Your task to perform on an android device: Add dell alienware to the cart on target.com Image 0: 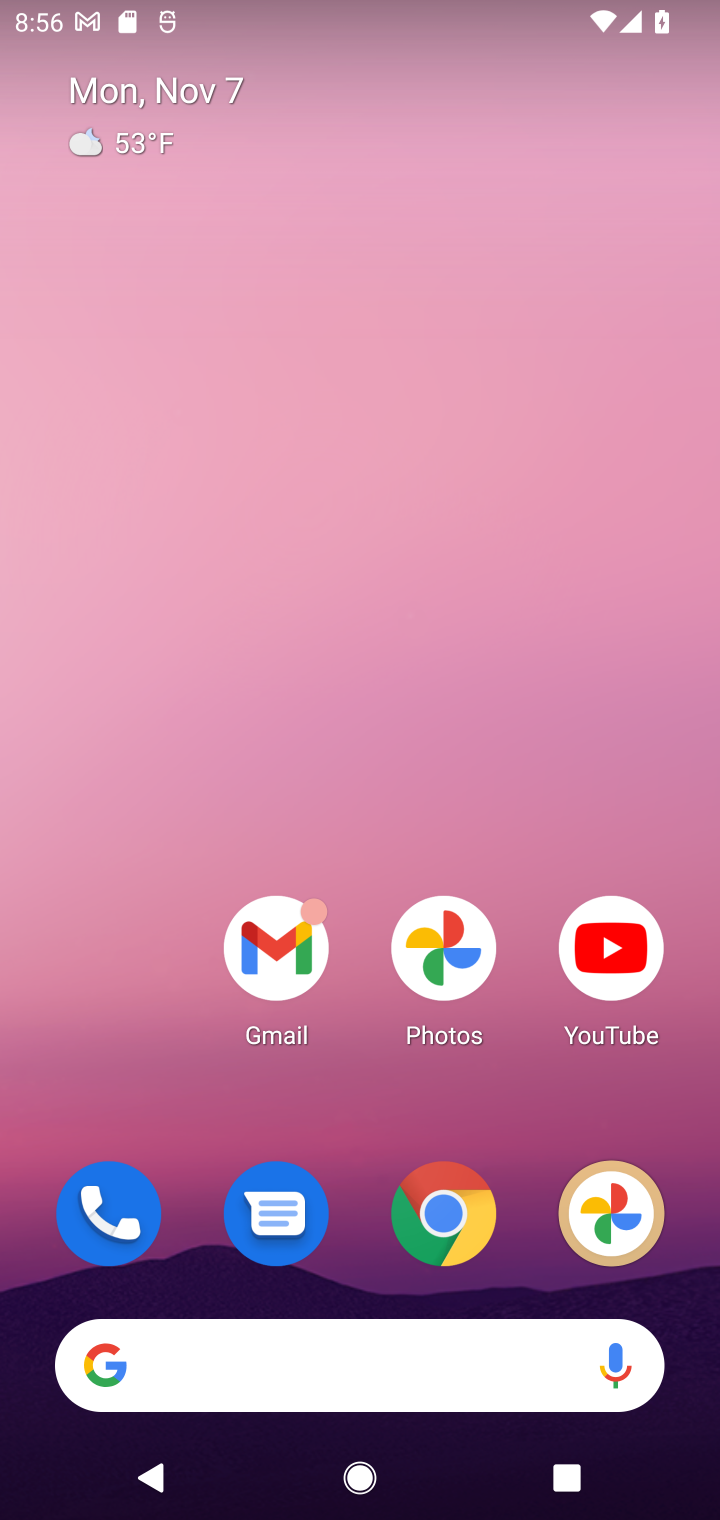
Step 0: click (448, 1204)
Your task to perform on an android device: Add dell alienware to the cart on target.com Image 1: 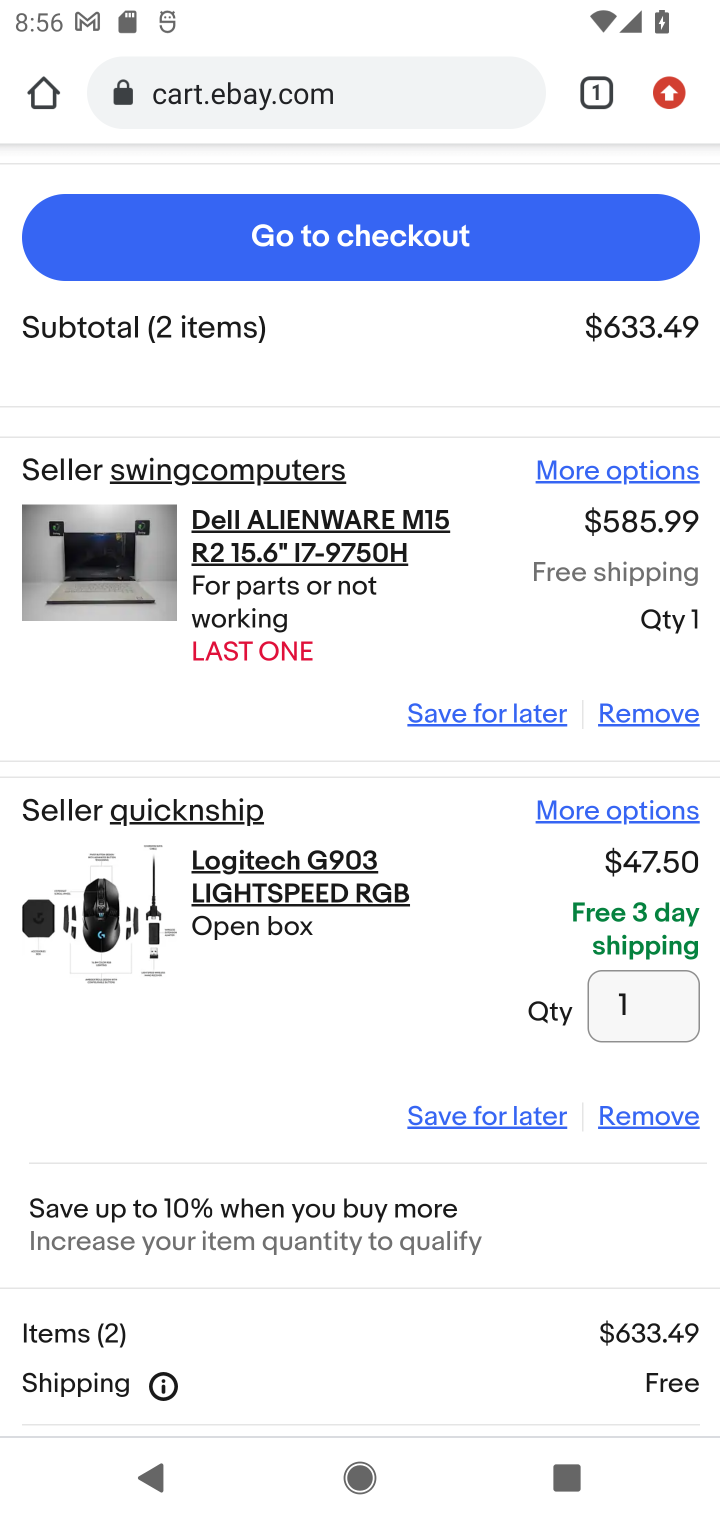
Step 1: click (275, 94)
Your task to perform on an android device: Add dell alienware to the cart on target.com Image 2: 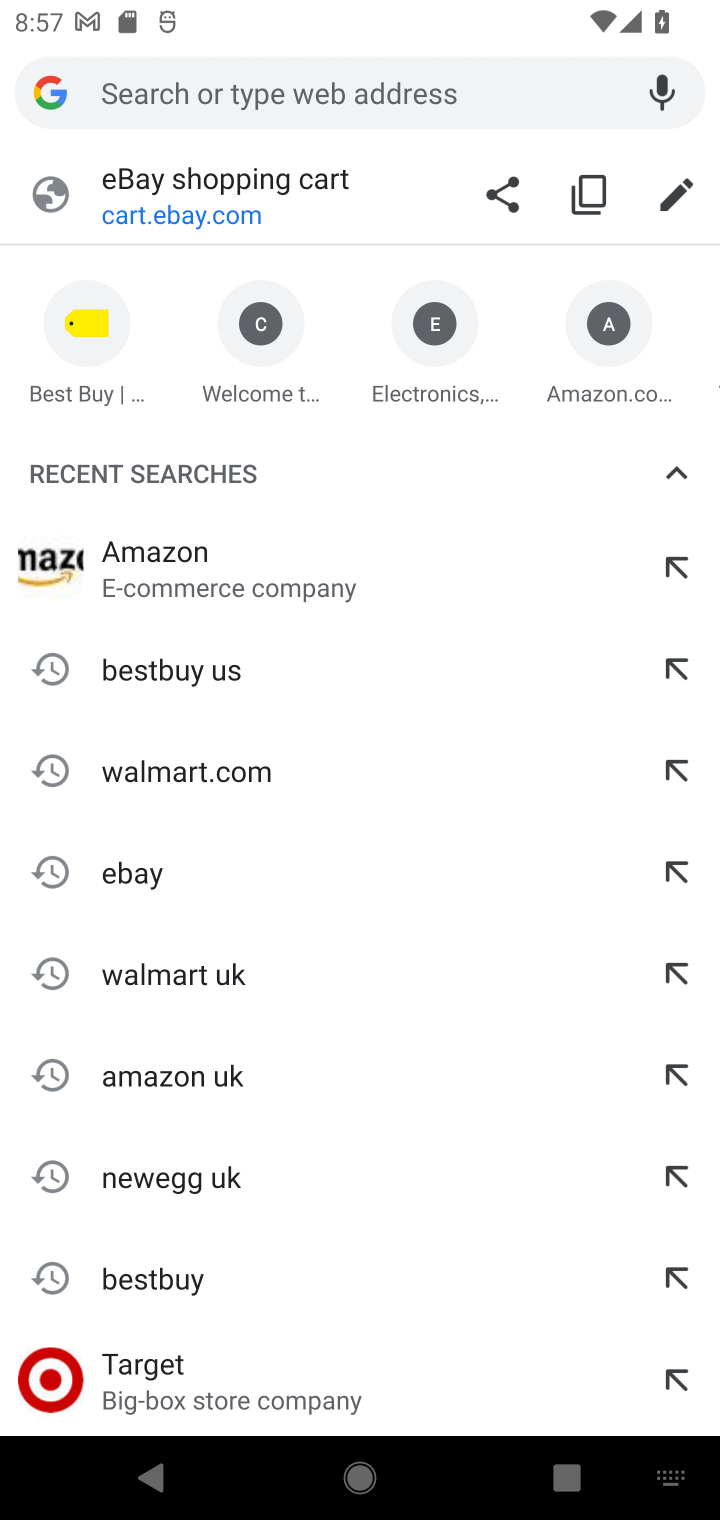
Step 2: type "target.com"
Your task to perform on an android device: Add dell alienware to the cart on target.com Image 3: 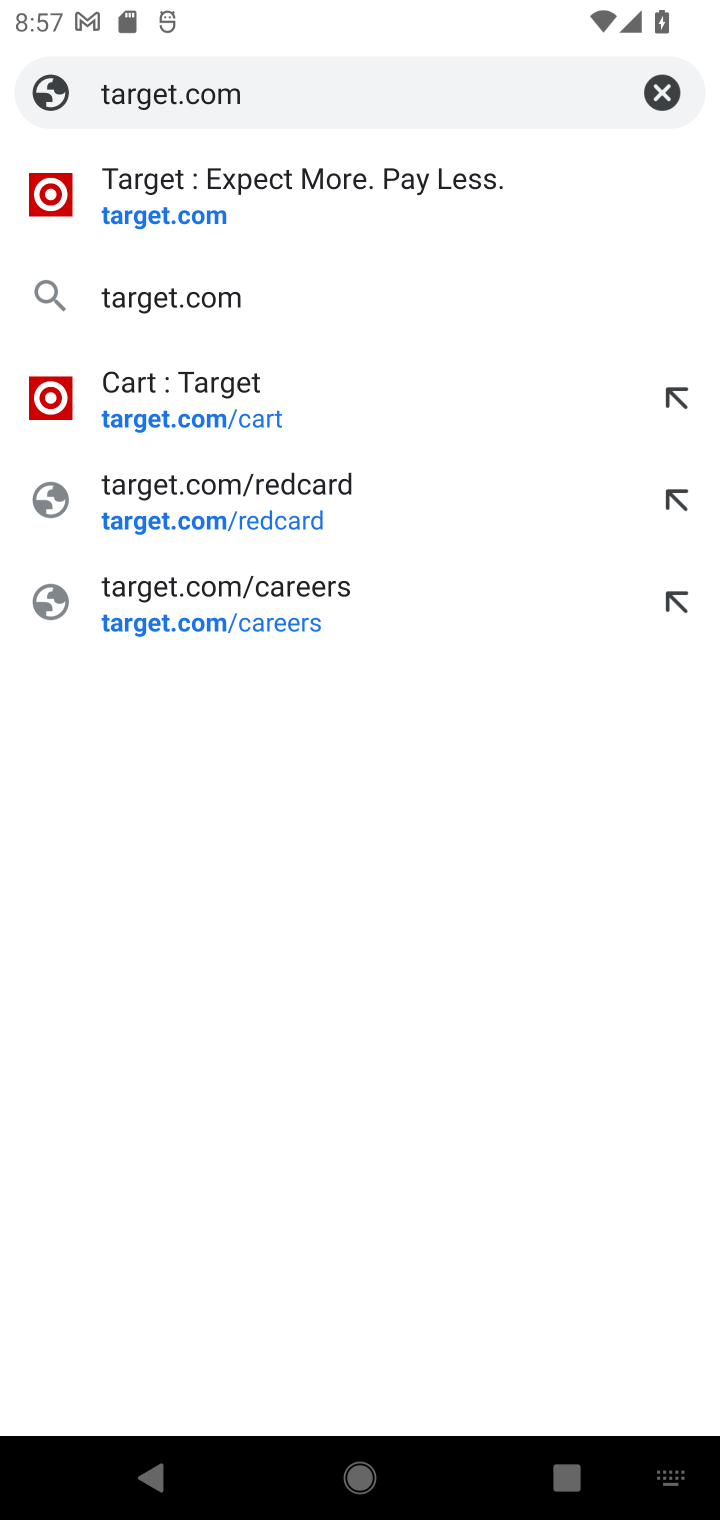
Step 3: click (150, 225)
Your task to perform on an android device: Add dell alienware to the cart on target.com Image 4: 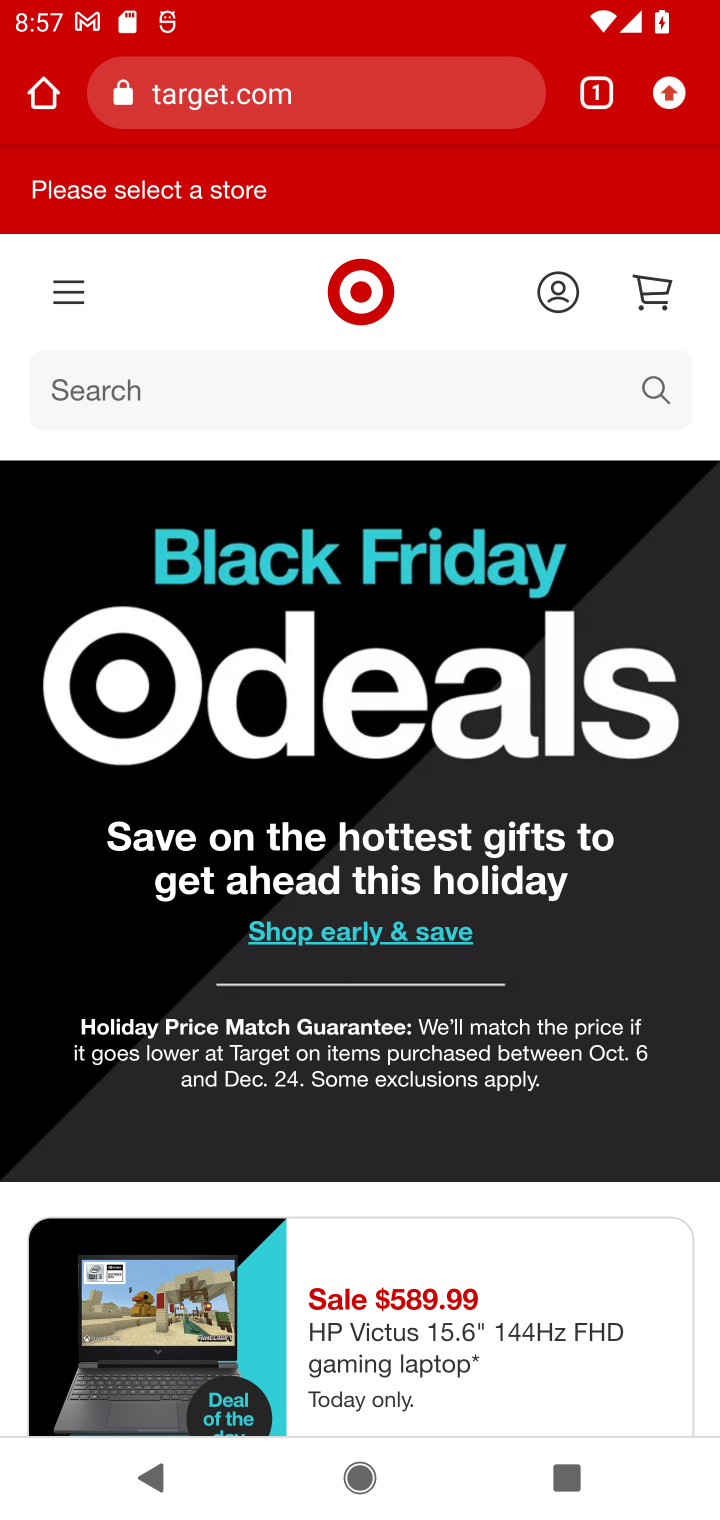
Step 4: click (659, 389)
Your task to perform on an android device: Add dell alienware to the cart on target.com Image 5: 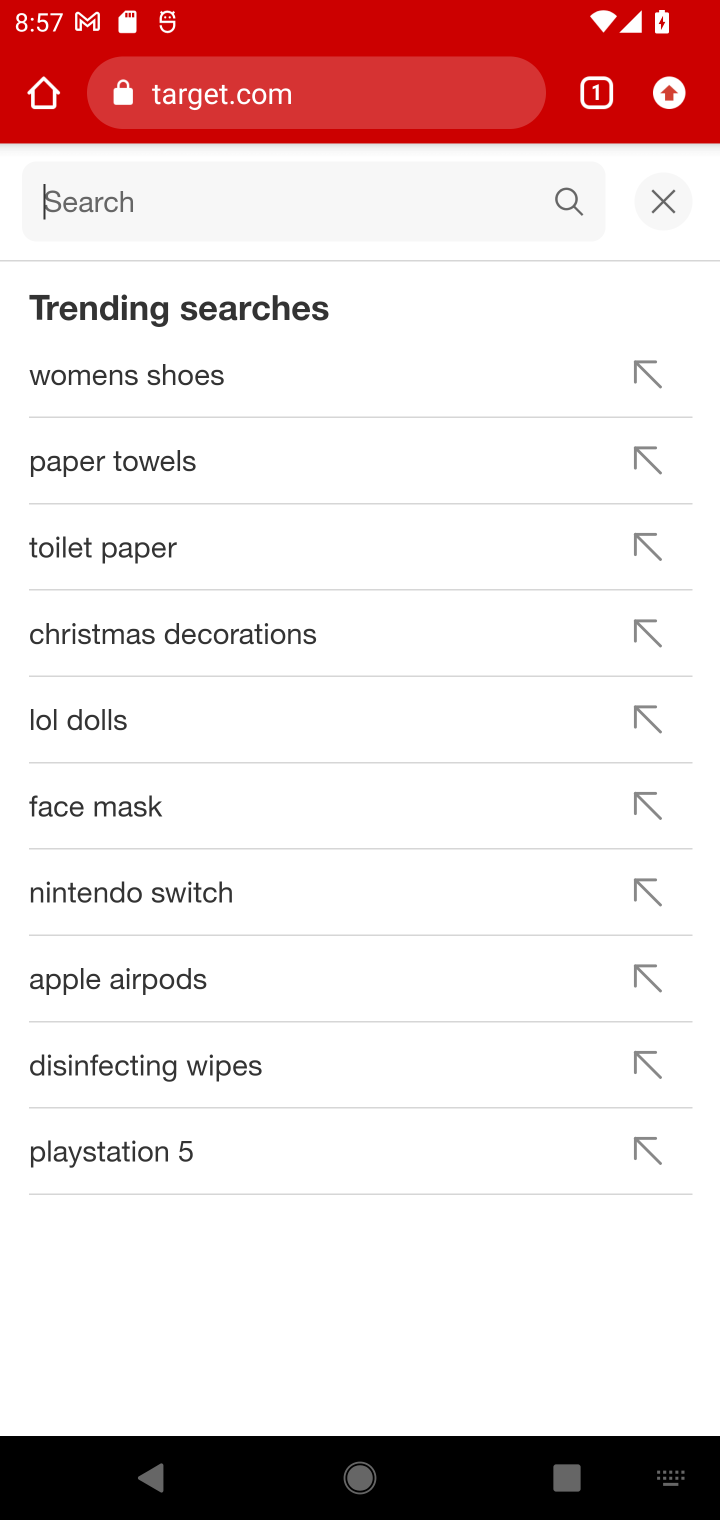
Step 5: type "dell alienware"
Your task to perform on an android device: Add dell alienware to the cart on target.com Image 6: 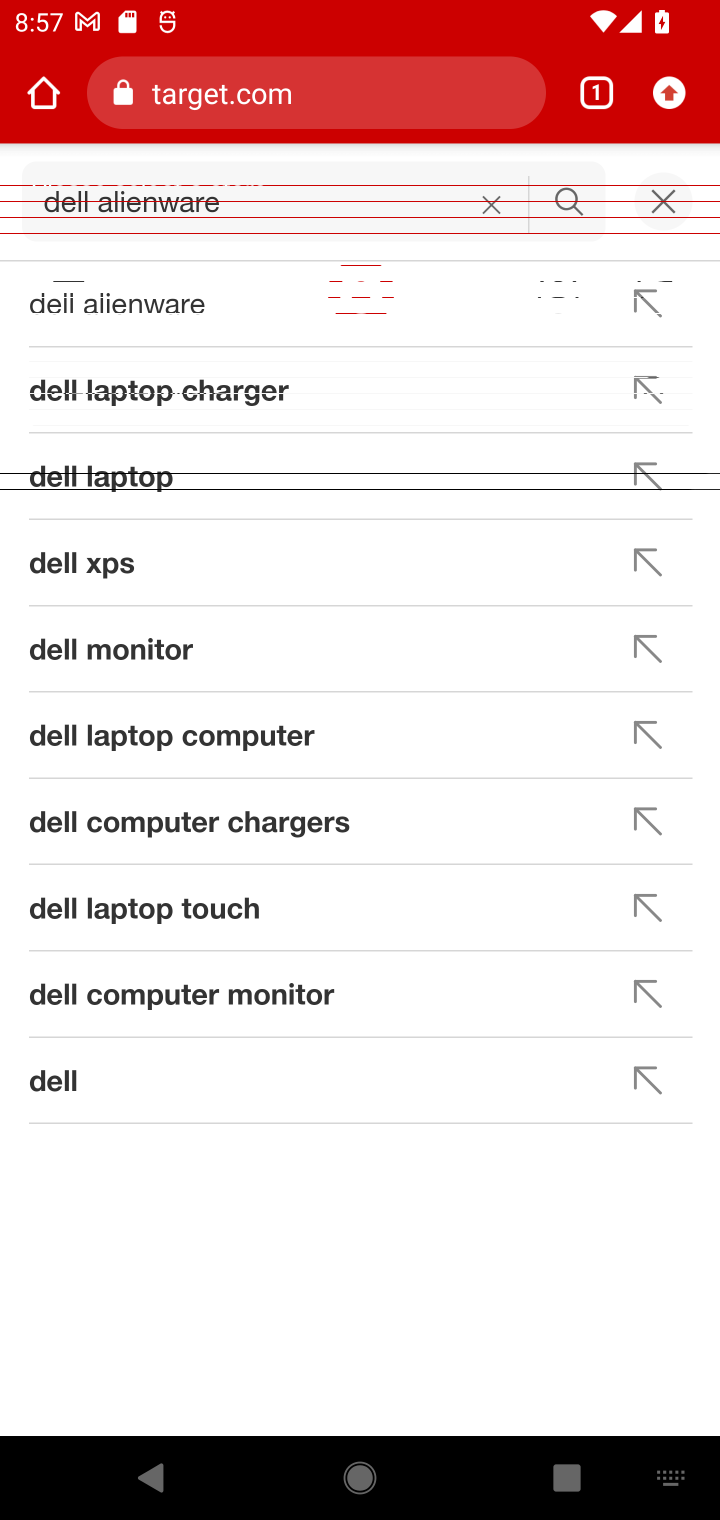
Step 6: click (134, 315)
Your task to perform on an android device: Add dell alienware to the cart on target.com Image 7: 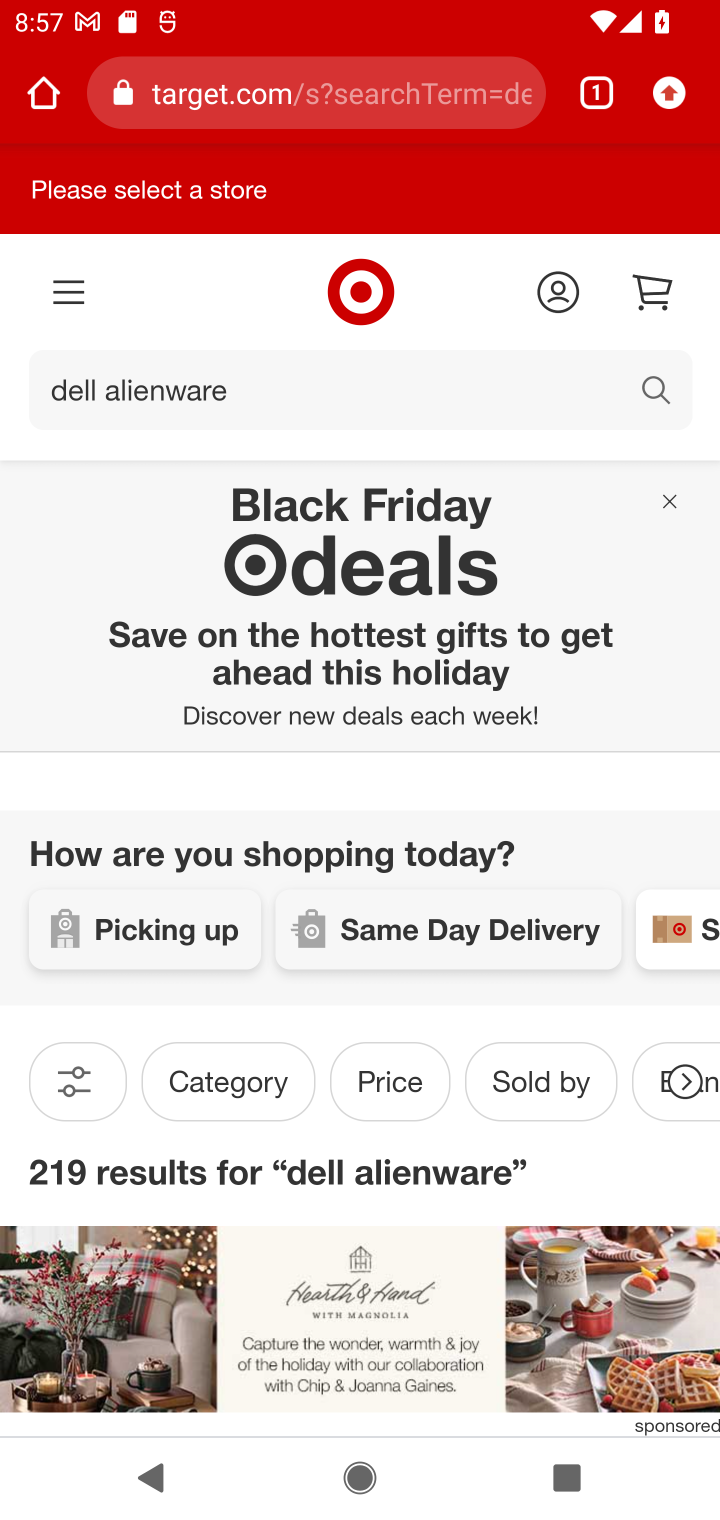
Step 7: task complete